Your task to perform on an android device: Open Chrome and go to settings Image 0: 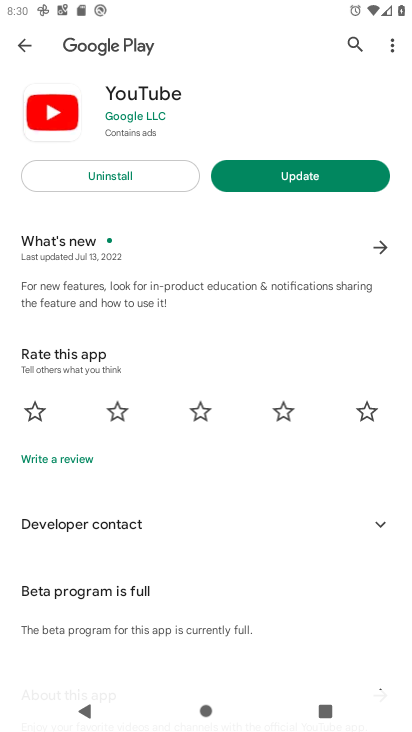
Step 0: press home button
Your task to perform on an android device: Open Chrome and go to settings Image 1: 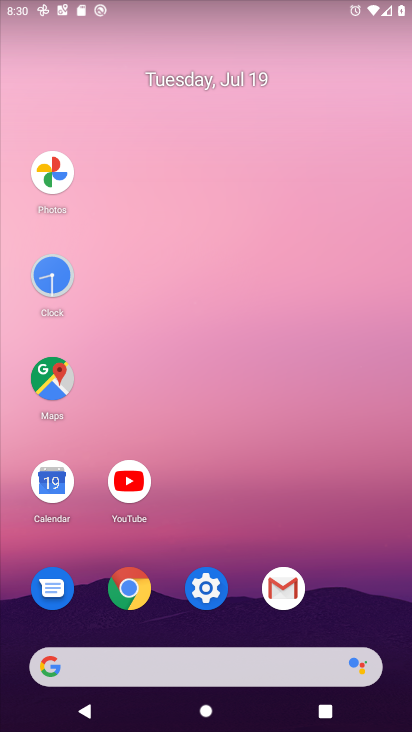
Step 1: click (125, 590)
Your task to perform on an android device: Open Chrome and go to settings Image 2: 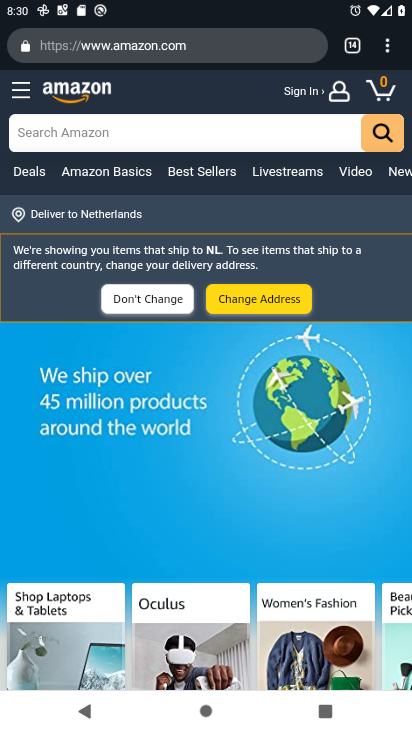
Step 2: click (390, 47)
Your task to perform on an android device: Open Chrome and go to settings Image 3: 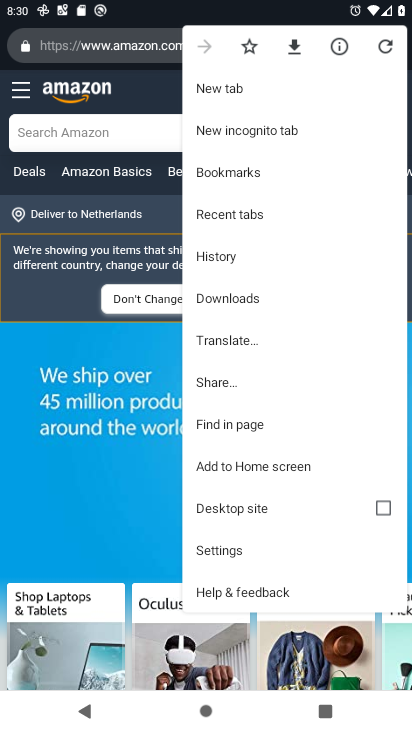
Step 3: click (223, 548)
Your task to perform on an android device: Open Chrome and go to settings Image 4: 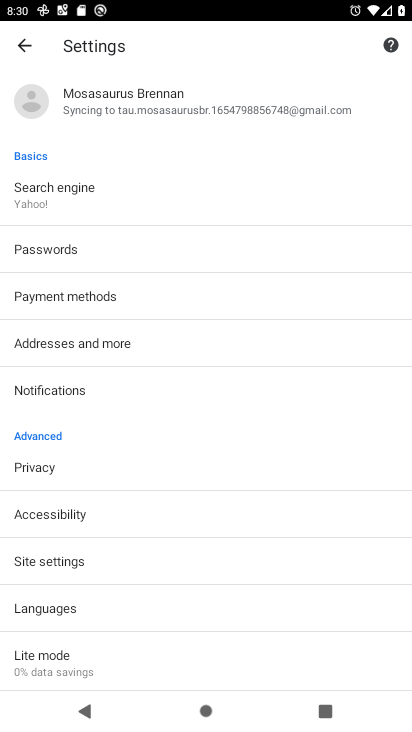
Step 4: task complete